Your task to perform on an android device: install app "Mercado Libre" Image 0: 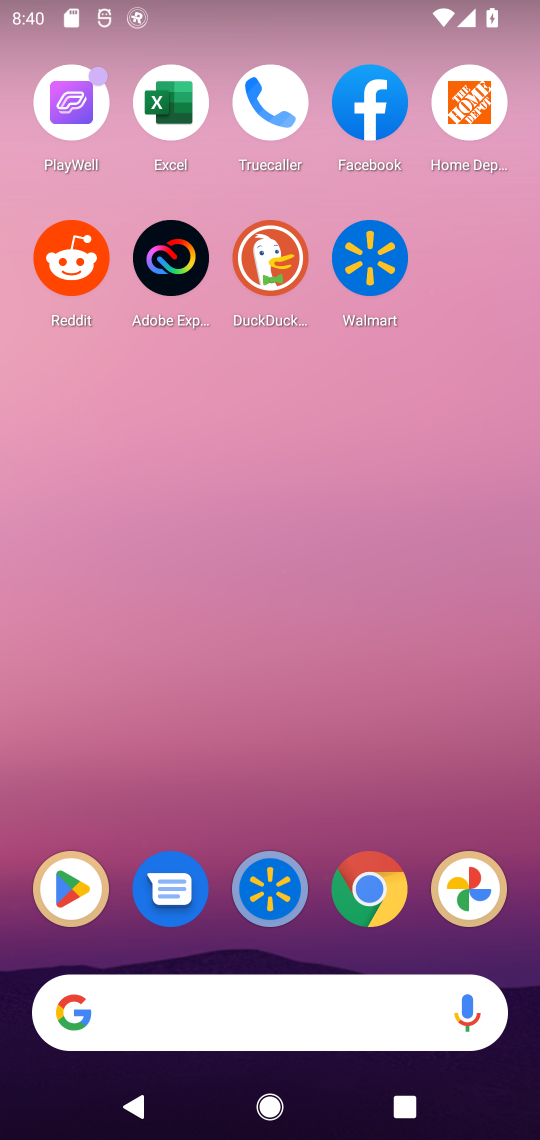
Step 0: press home button
Your task to perform on an android device: install app "Mercado Libre" Image 1: 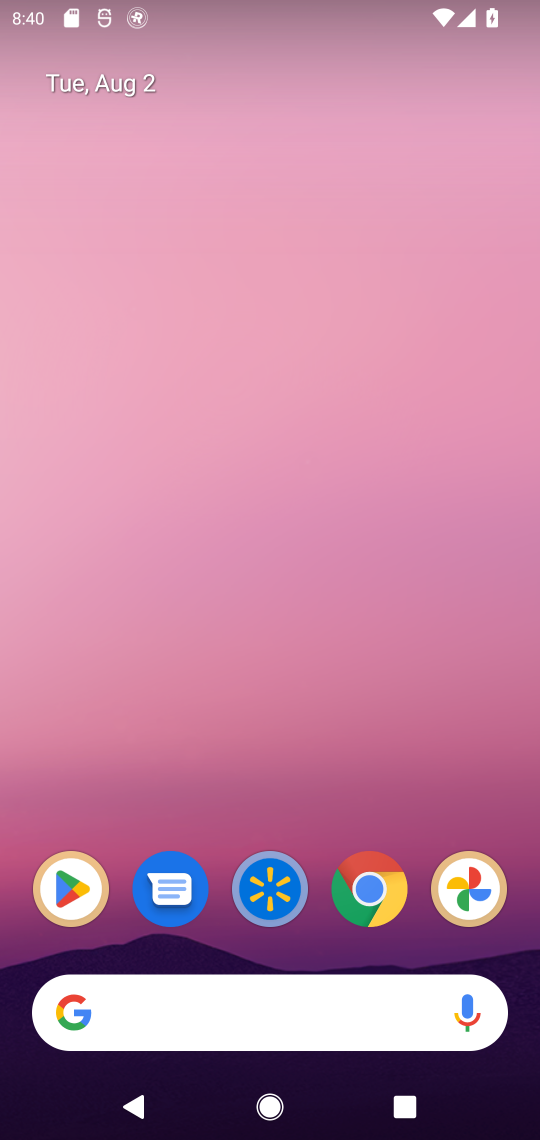
Step 1: click (87, 889)
Your task to perform on an android device: install app "Mercado Libre" Image 2: 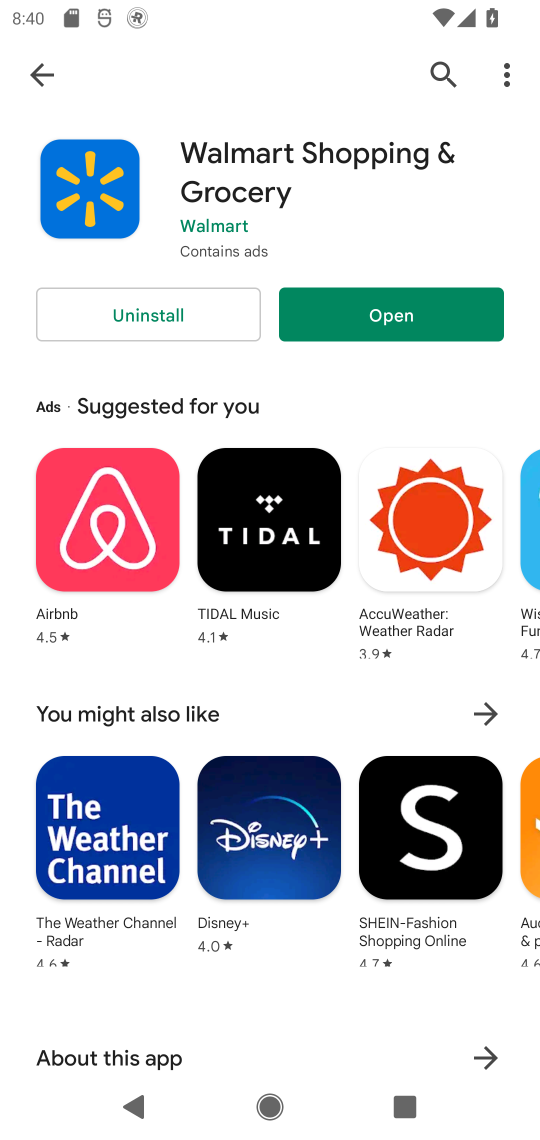
Step 2: click (436, 60)
Your task to perform on an android device: install app "Mercado Libre" Image 3: 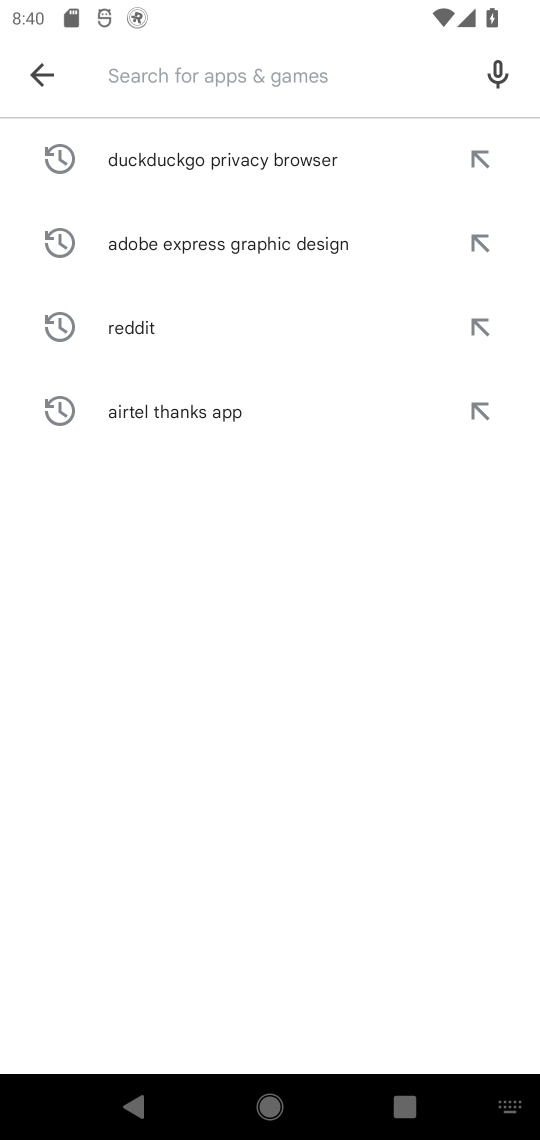
Step 3: type "Mercado Libre"
Your task to perform on an android device: install app "Mercado Libre" Image 4: 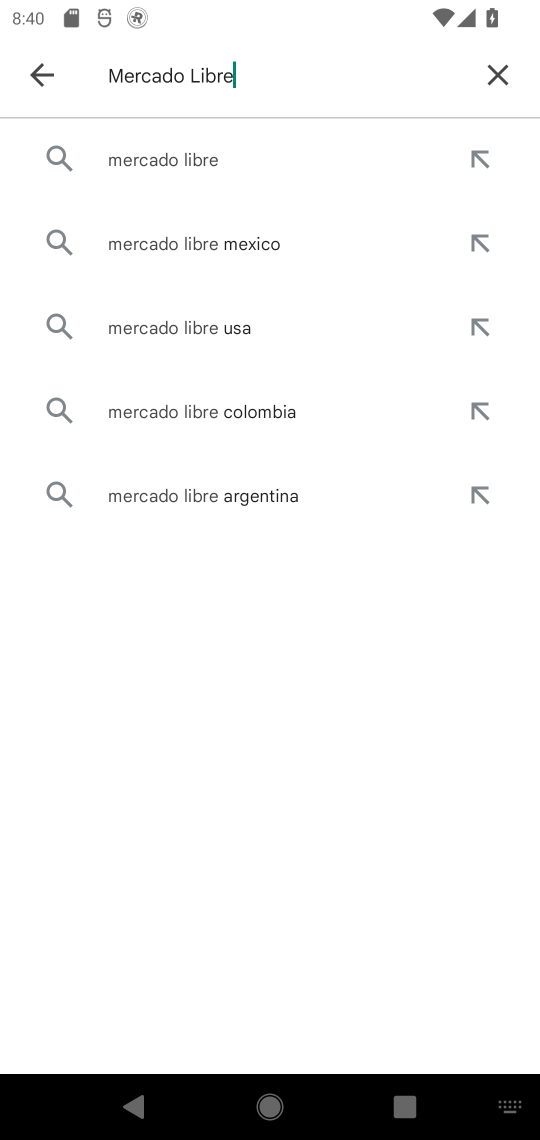
Step 4: click (191, 146)
Your task to perform on an android device: install app "Mercado Libre" Image 5: 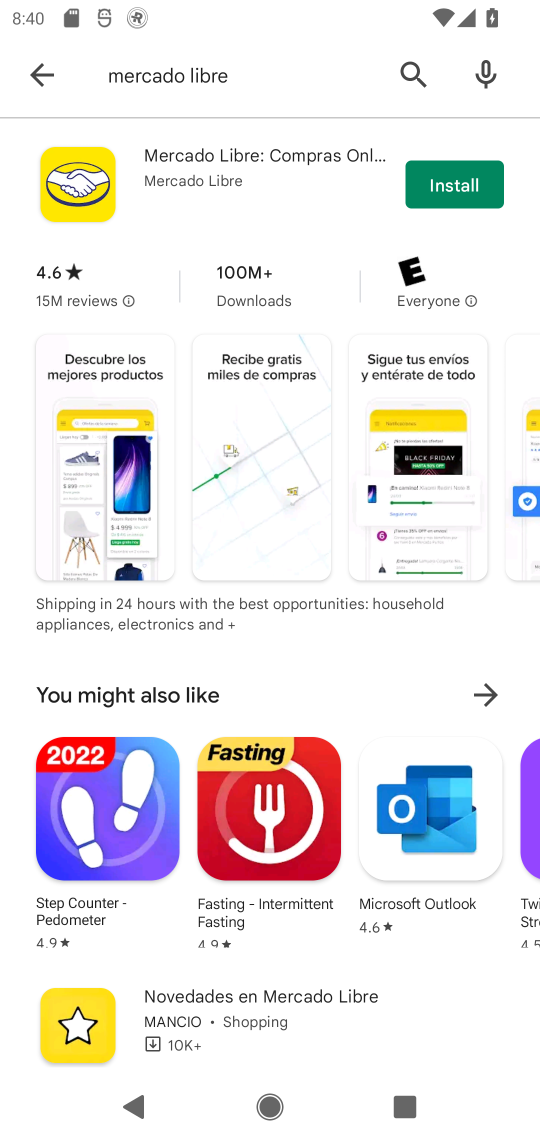
Step 5: click (476, 175)
Your task to perform on an android device: install app "Mercado Libre" Image 6: 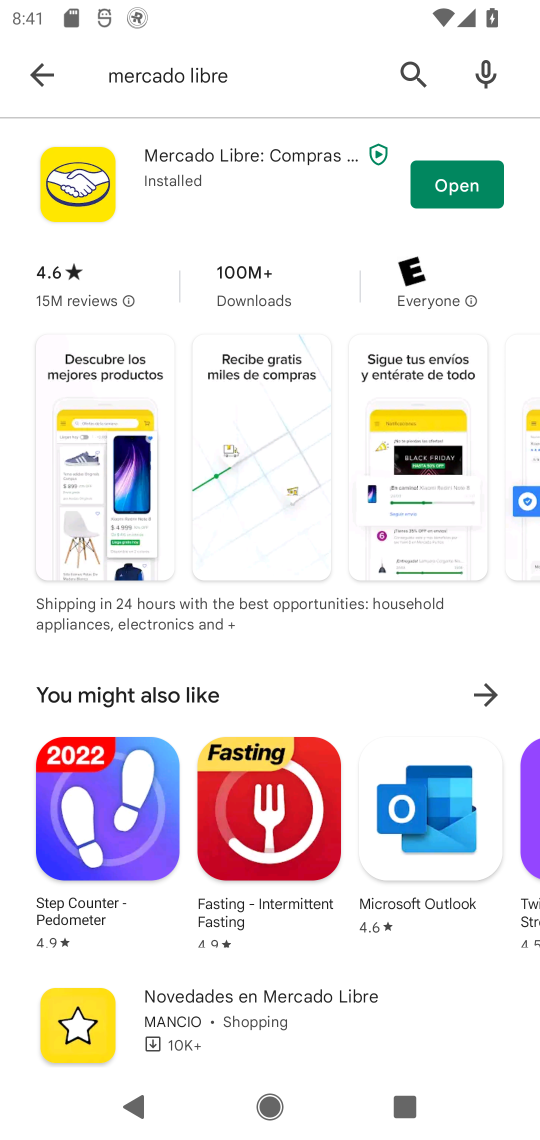
Step 6: task complete